Your task to perform on an android device: Show me recent news Image 0: 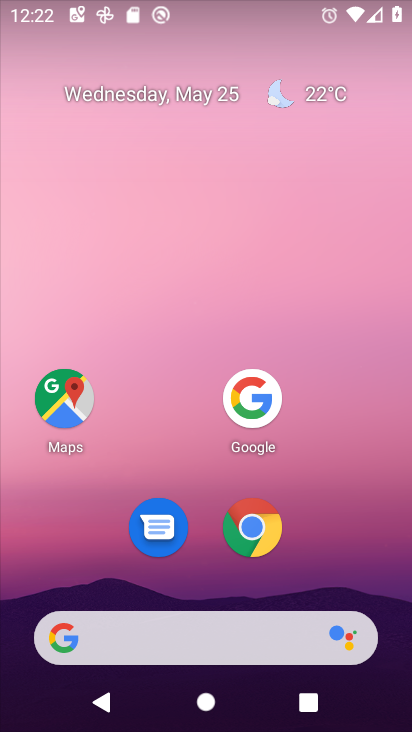
Step 0: press home button
Your task to perform on an android device: Show me recent news Image 1: 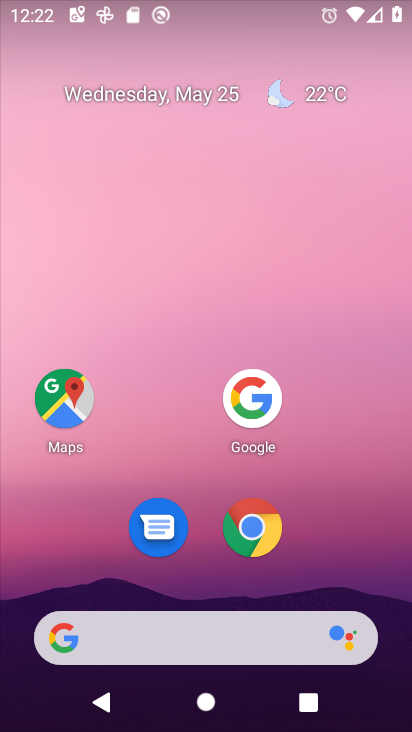
Step 1: click (72, 645)
Your task to perform on an android device: Show me recent news Image 2: 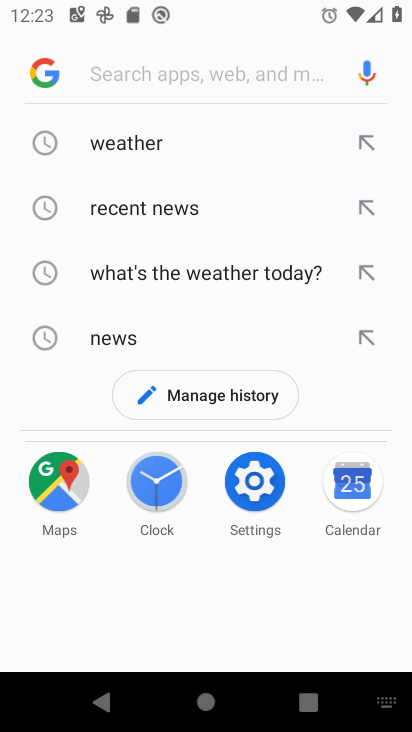
Step 2: click (153, 211)
Your task to perform on an android device: Show me recent news Image 3: 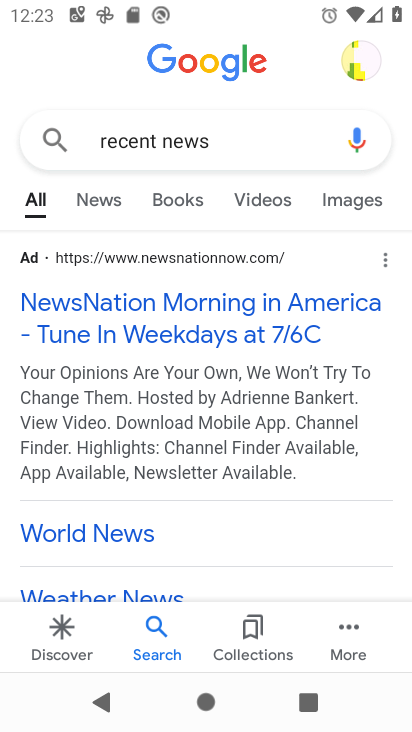
Step 3: click (103, 203)
Your task to perform on an android device: Show me recent news Image 4: 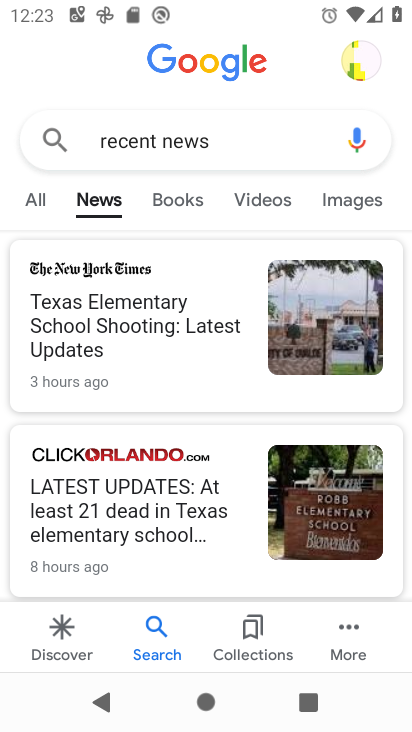
Step 4: task complete